Your task to perform on an android device: What's the weather? Image 0: 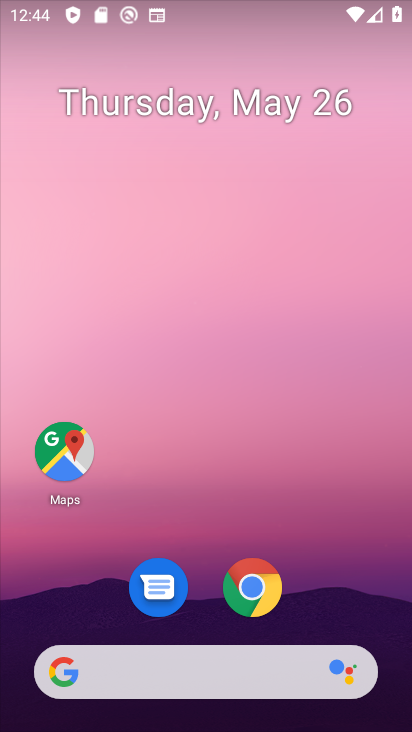
Step 0: click (245, 673)
Your task to perform on an android device: What's the weather? Image 1: 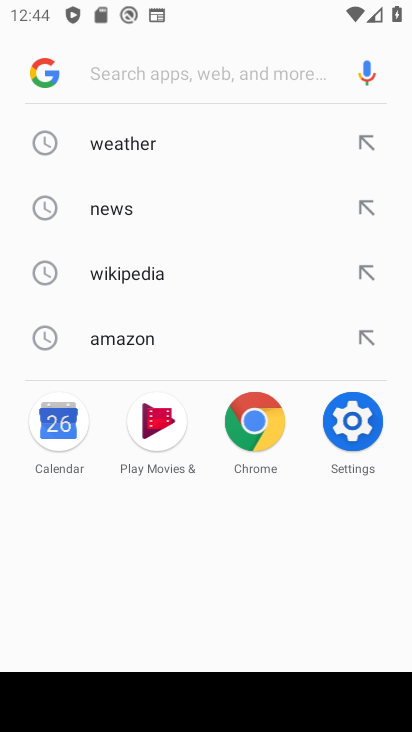
Step 1: click (144, 146)
Your task to perform on an android device: What's the weather? Image 2: 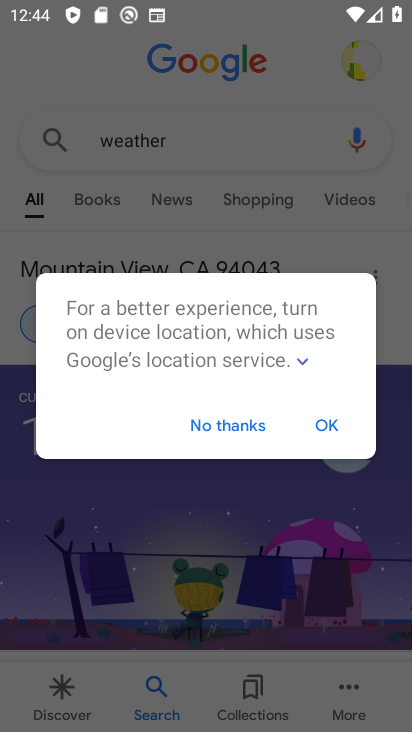
Step 2: click (238, 436)
Your task to perform on an android device: What's the weather? Image 3: 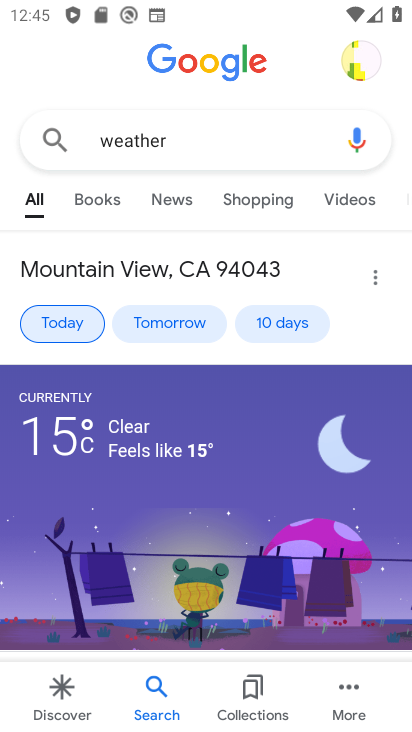
Step 3: task complete